Your task to perform on an android device: Open settings on Google Maps Image 0: 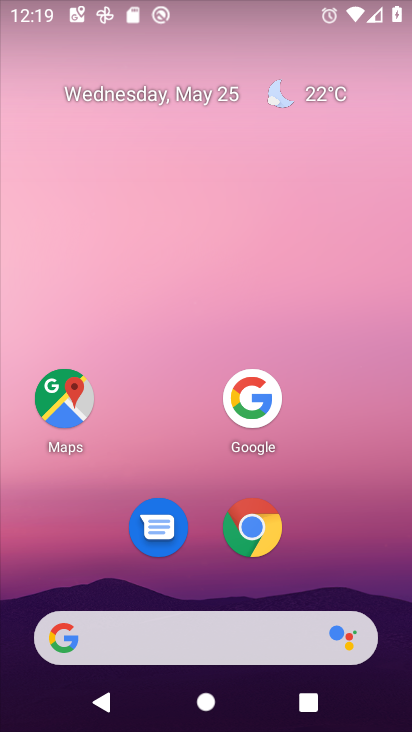
Step 0: press home button
Your task to perform on an android device: Open settings on Google Maps Image 1: 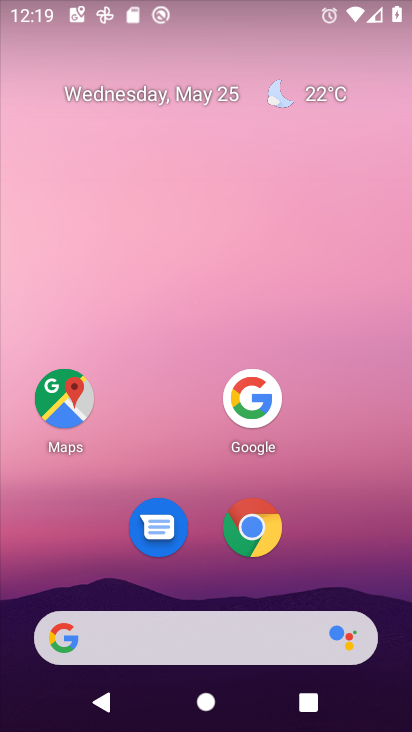
Step 1: drag from (158, 662) to (281, 113)
Your task to perform on an android device: Open settings on Google Maps Image 2: 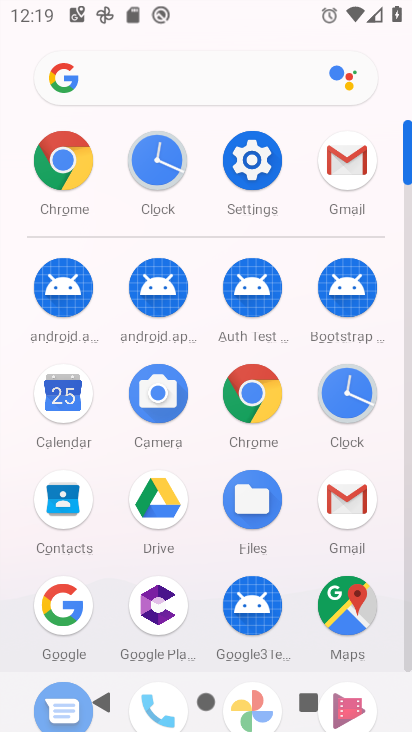
Step 2: click (351, 597)
Your task to perform on an android device: Open settings on Google Maps Image 3: 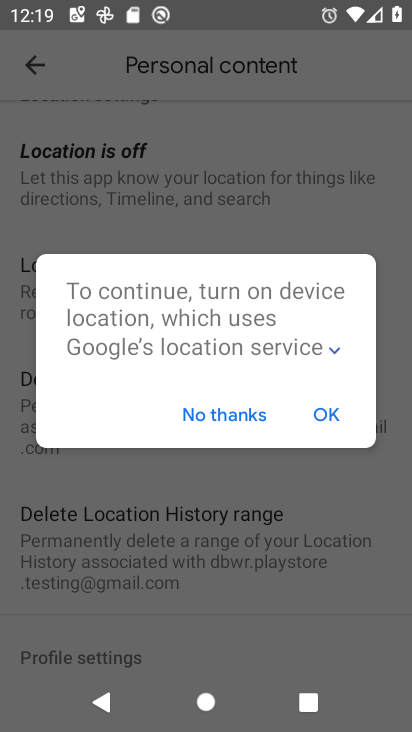
Step 3: click (333, 417)
Your task to perform on an android device: Open settings on Google Maps Image 4: 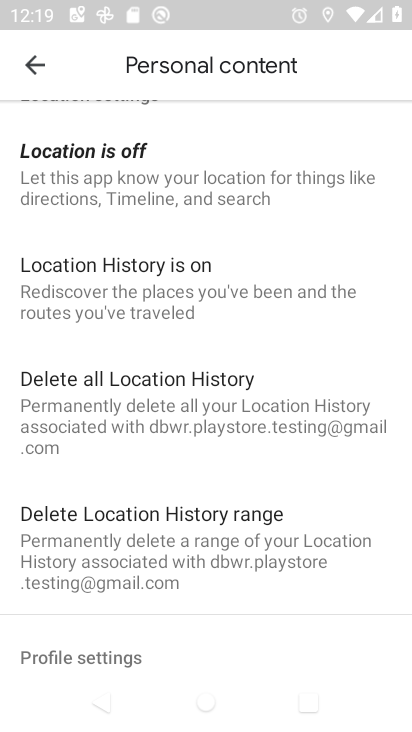
Step 4: click (26, 52)
Your task to perform on an android device: Open settings on Google Maps Image 5: 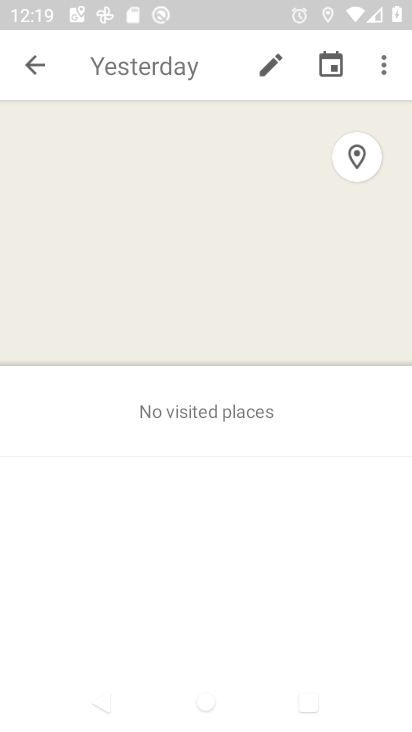
Step 5: click (36, 62)
Your task to perform on an android device: Open settings on Google Maps Image 6: 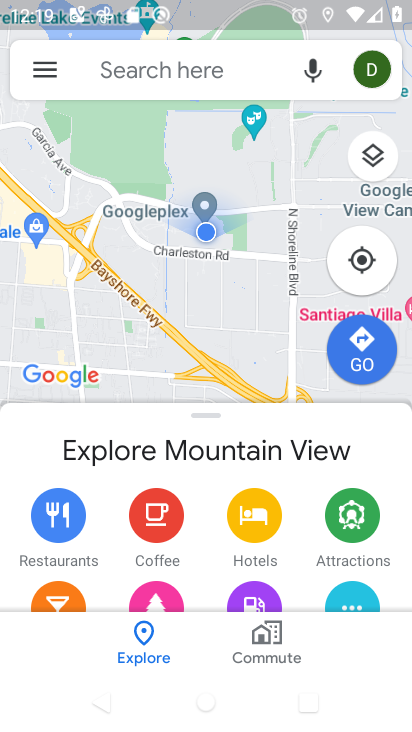
Step 6: click (40, 73)
Your task to perform on an android device: Open settings on Google Maps Image 7: 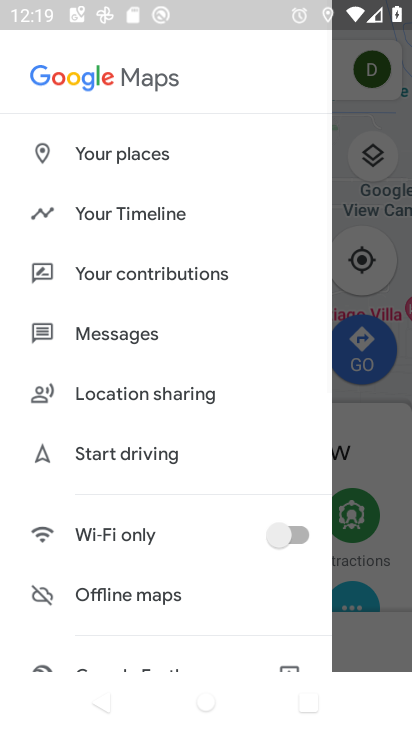
Step 7: drag from (184, 594) to (258, 145)
Your task to perform on an android device: Open settings on Google Maps Image 8: 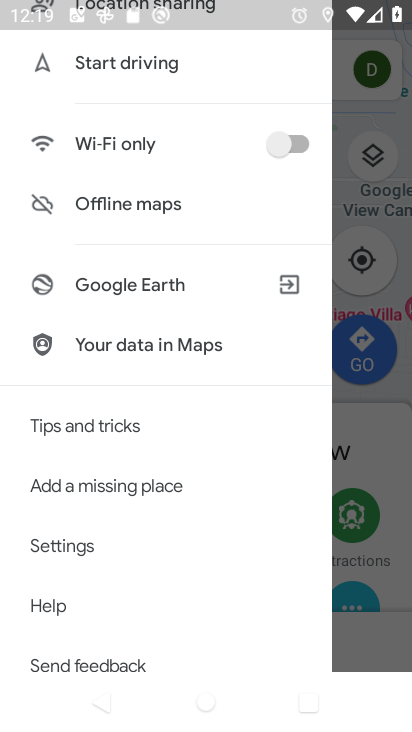
Step 8: click (75, 541)
Your task to perform on an android device: Open settings on Google Maps Image 9: 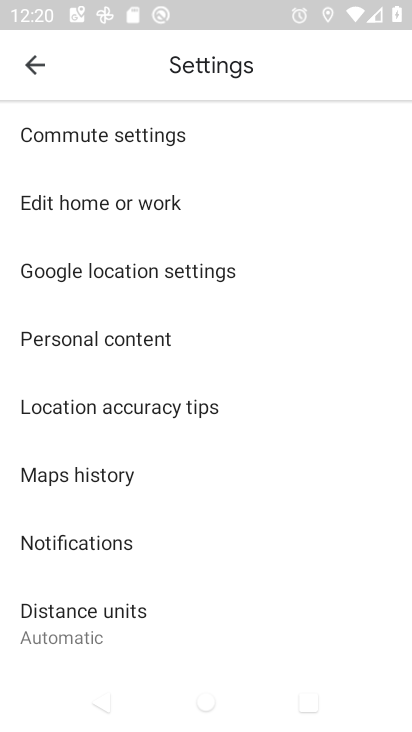
Step 9: task complete